Your task to perform on an android device: Go to internet settings Image 0: 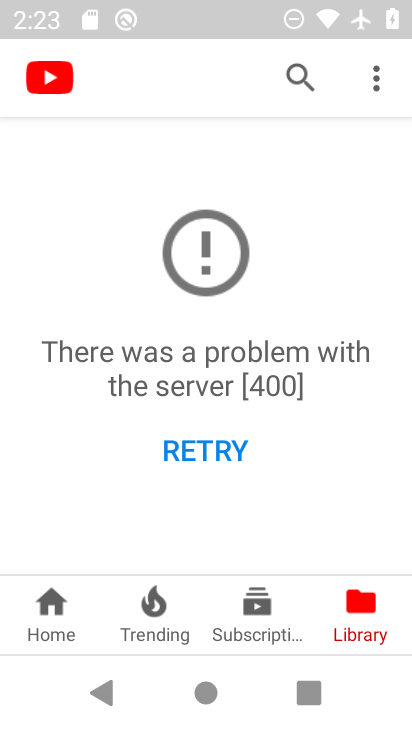
Step 0: press home button
Your task to perform on an android device: Go to internet settings Image 1: 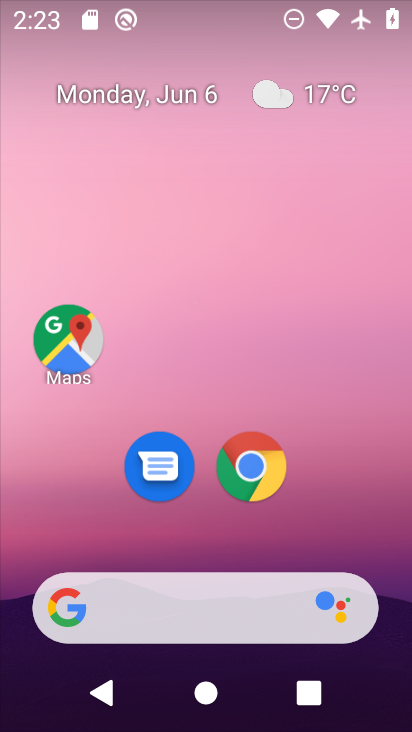
Step 1: drag from (322, 533) to (329, 198)
Your task to perform on an android device: Go to internet settings Image 2: 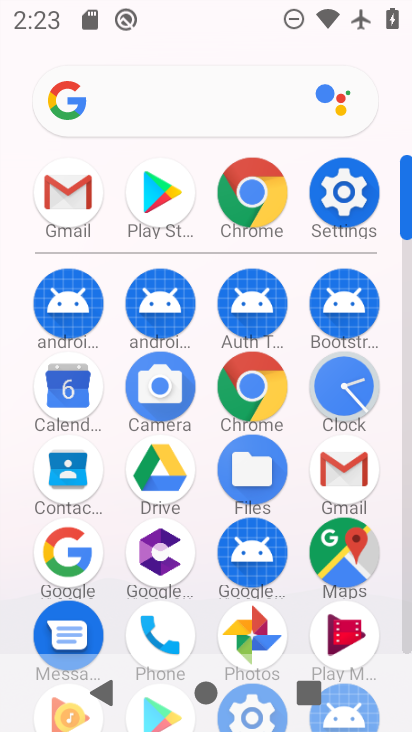
Step 2: click (354, 187)
Your task to perform on an android device: Go to internet settings Image 3: 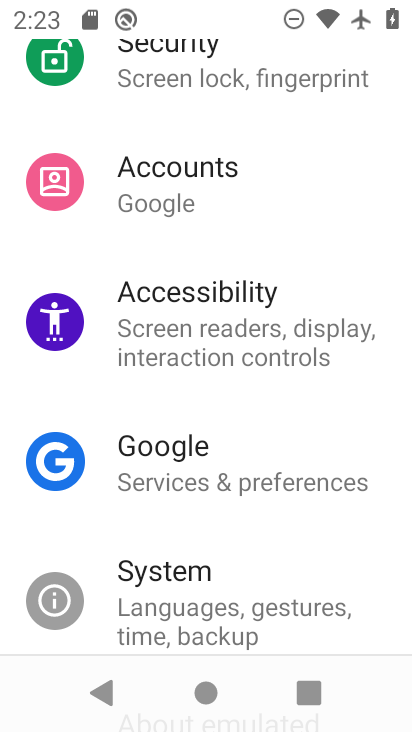
Step 3: drag from (285, 126) to (247, 728)
Your task to perform on an android device: Go to internet settings Image 4: 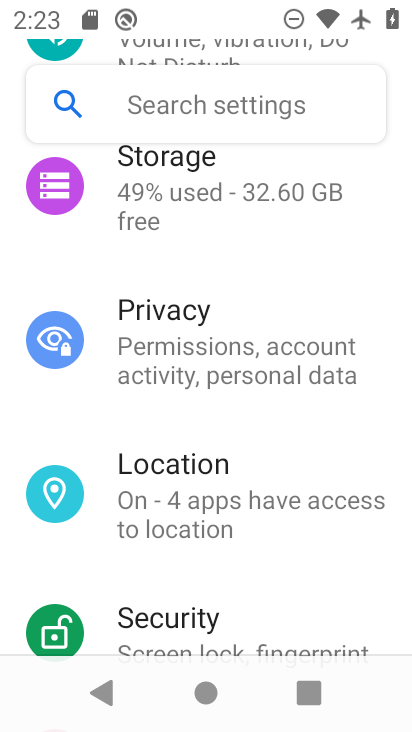
Step 4: drag from (268, 253) to (262, 729)
Your task to perform on an android device: Go to internet settings Image 5: 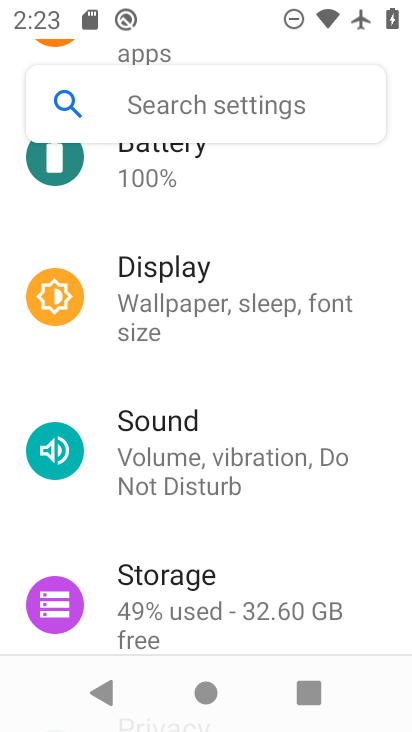
Step 5: drag from (283, 202) to (211, 722)
Your task to perform on an android device: Go to internet settings Image 6: 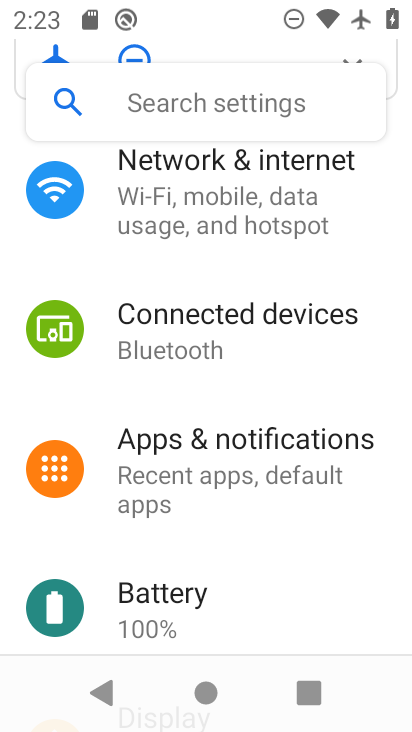
Step 6: click (284, 209)
Your task to perform on an android device: Go to internet settings Image 7: 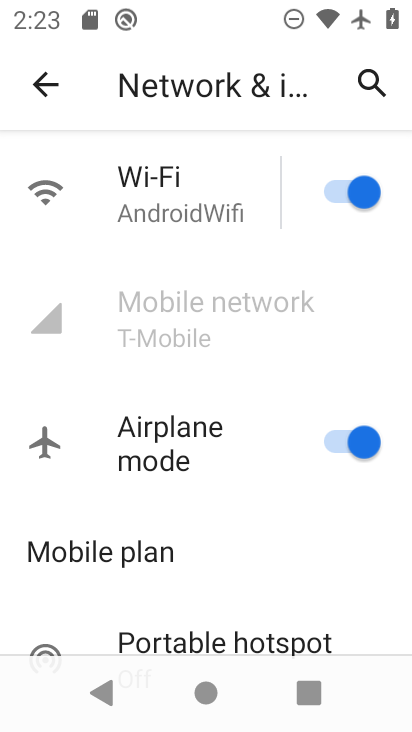
Step 7: click (223, 536)
Your task to perform on an android device: Go to internet settings Image 8: 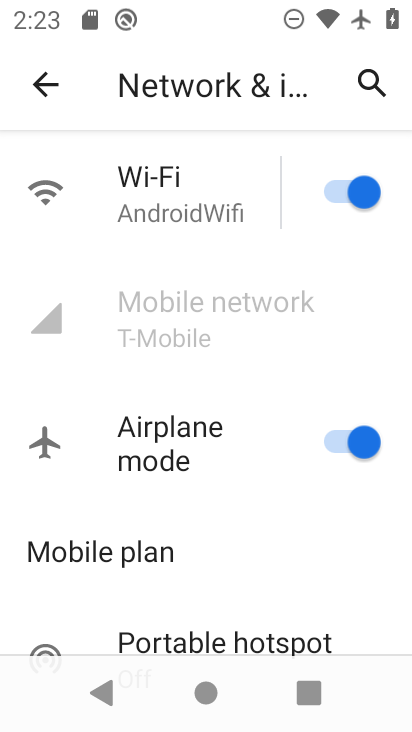
Step 8: task complete